Your task to perform on an android device: turn on airplane mode Image 0: 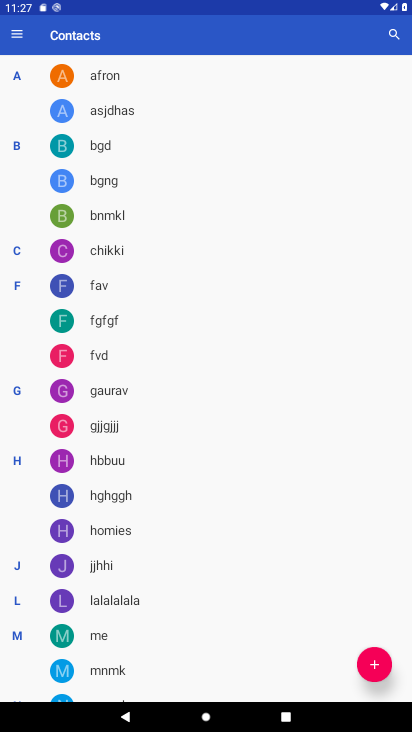
Step 0: press home button
Your task to perform on an android device: turn on airplane mode Image 1: 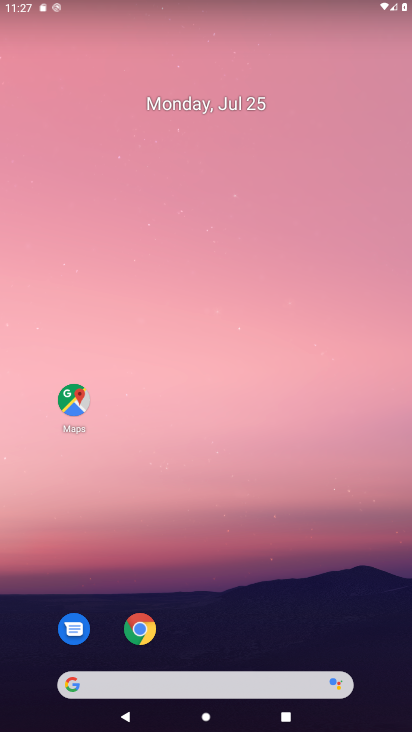
Step 1: drag from (182, 681) to (175, 107)
Your task to perform on an android device: turn on airplane mode Image 2: 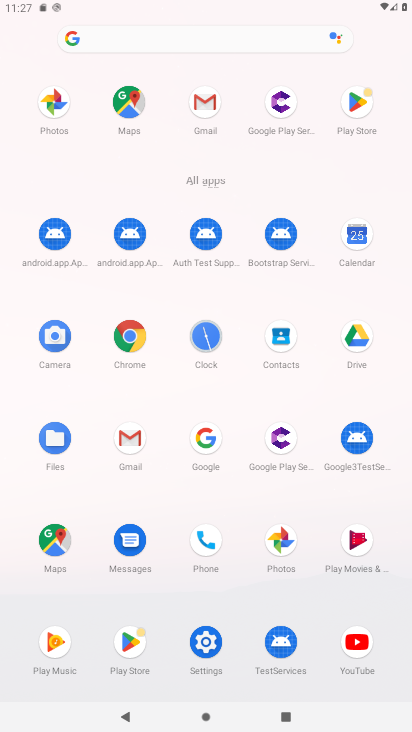
Step 2: click (209, 644)
Your task to perform on an android device: turn on airplane mode Image 3: 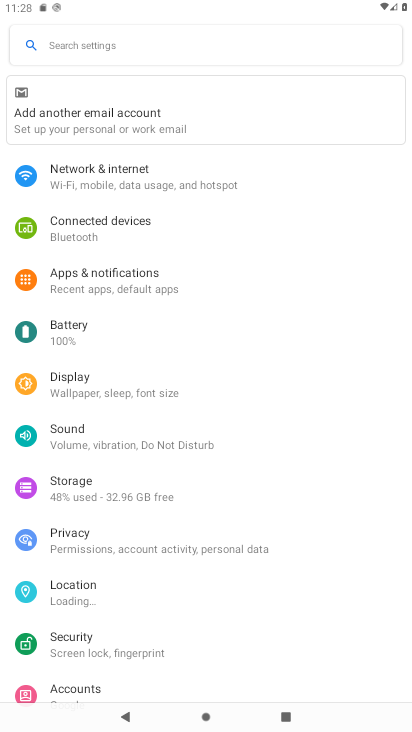
Step 3: click (139, 170)
Your task to perform on an android device: turn on airplane mode Image 4: 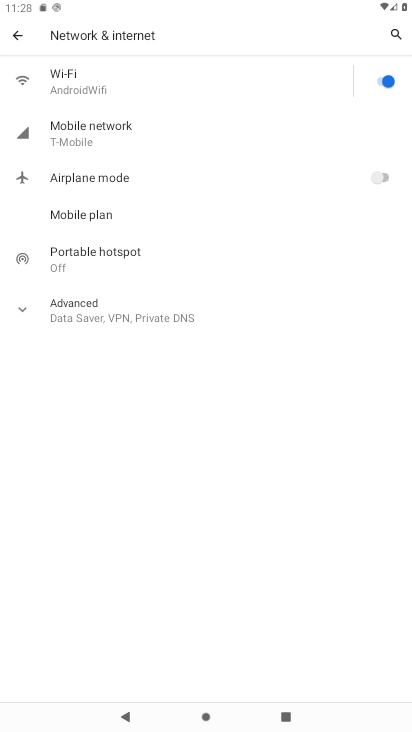
Step 4: click (377, 174)
Your task to perform on an android device: turn on airplane mode Image 5: 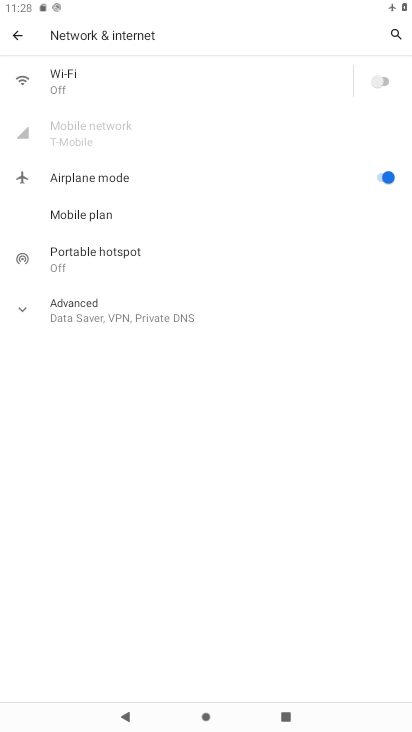
Step 5: task complete